Your task to perform on an android device: Open notification settings Image 0: 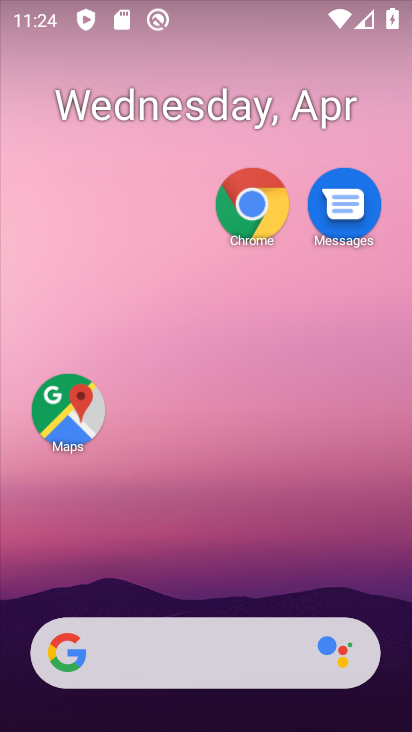
Step 0: drag from (180, 599) to (105, 5)
Your task to perform on an android device: Open notification settings Image 1: 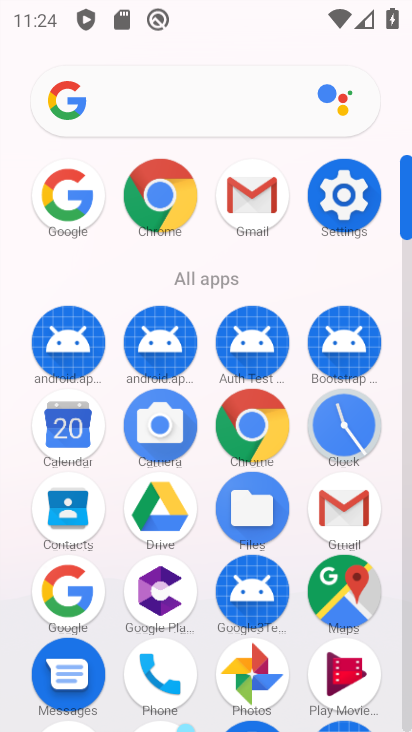
Step 1: click (334, 206)
Your task to perform on an android device: Open notification settings Image 2: 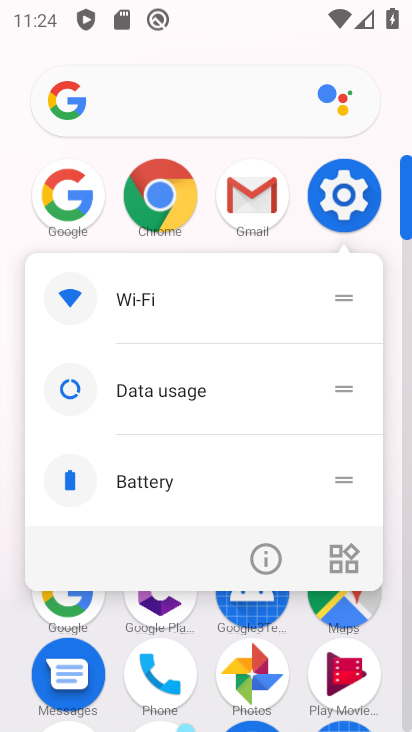
Step 2: click (339, 200)
Your task to perform on an android device: Open notification settings Image 3: 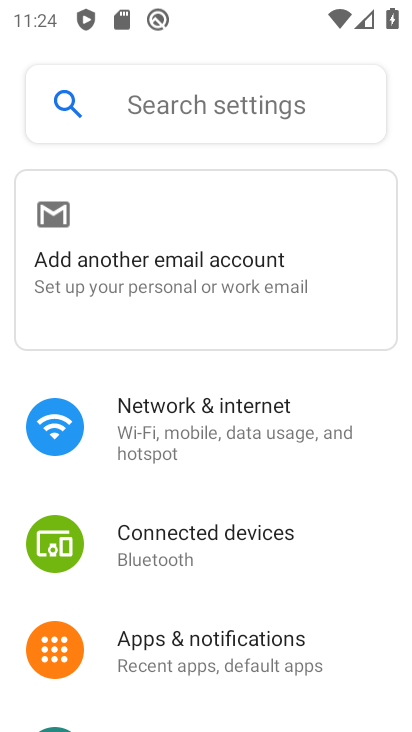
Step 3: click (220, 637)
Your task to perform on an android device: Open notification settings Image 4: 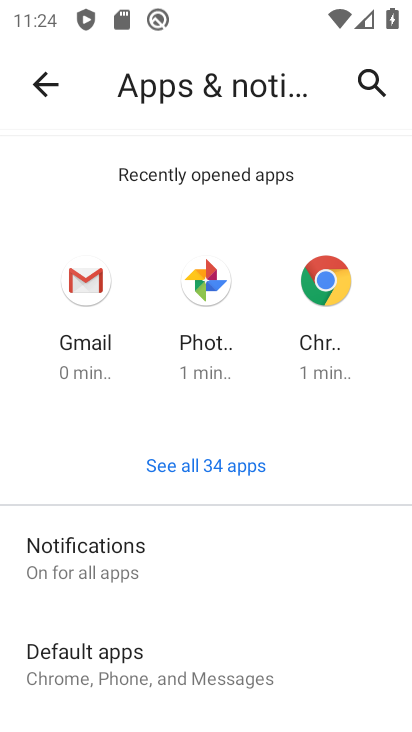
Step 4: drag from (164, 695) to (127, 293)
Your task to perform on an android device: Open notification settings Image 5: 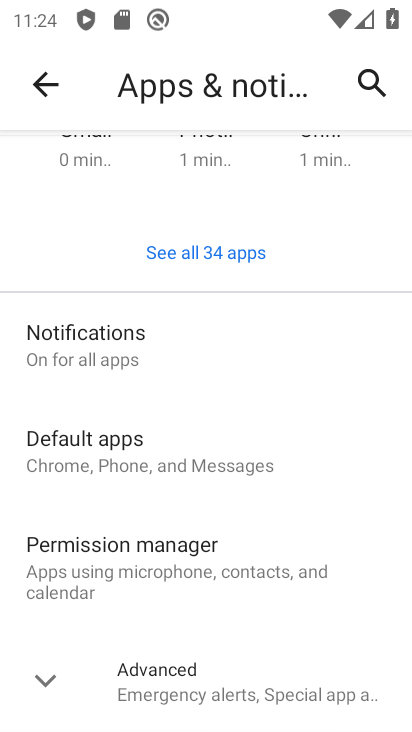
Step 5: click (71, 364)
Your task to perform on an android device: Open notification settings Image 6: 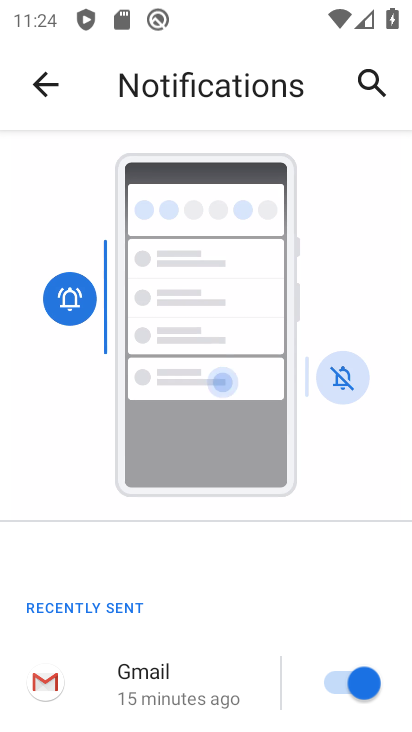
Step 6: task complete